Your task to perform on an android device: open app "Duolingo: language lessons" Image 0: 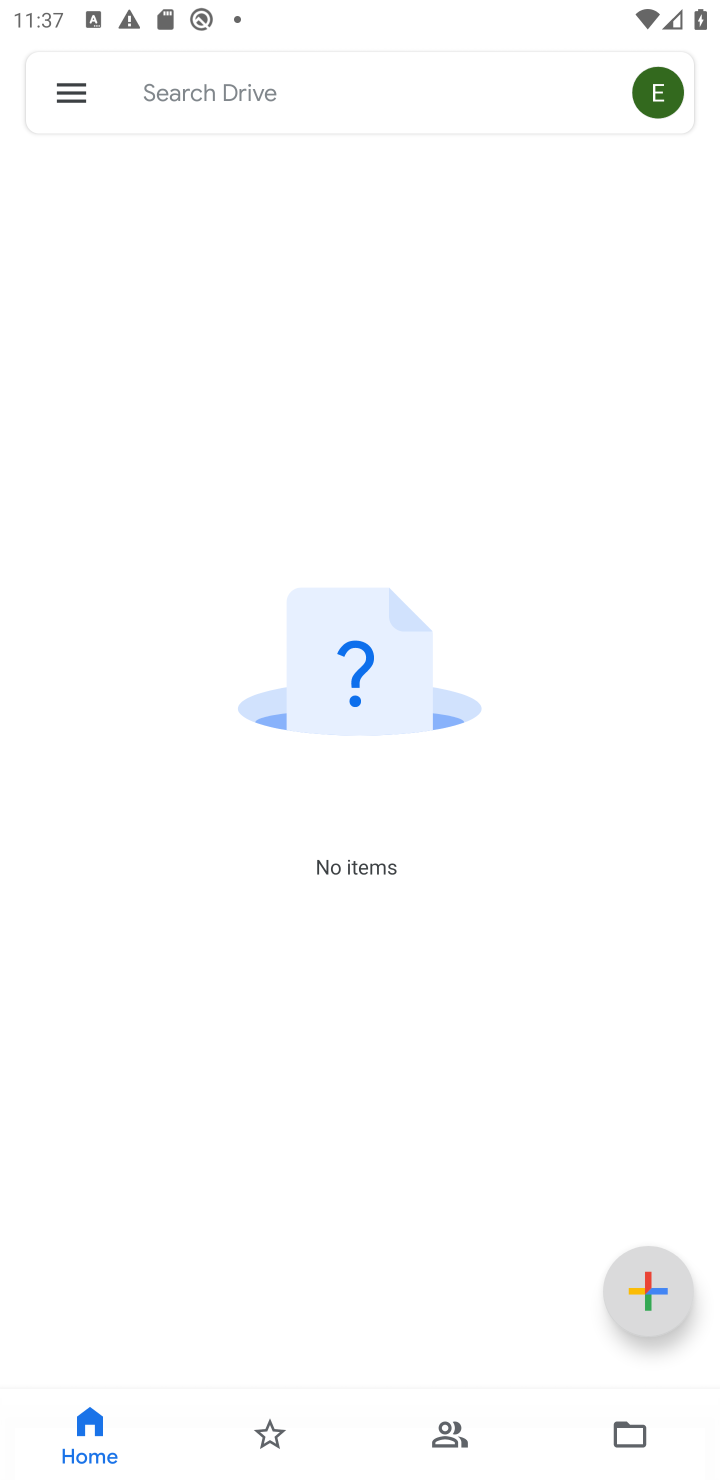
Step 0: press home button
Your task to perform on an android device: open app "Duolingo: language lessons" Image 1: 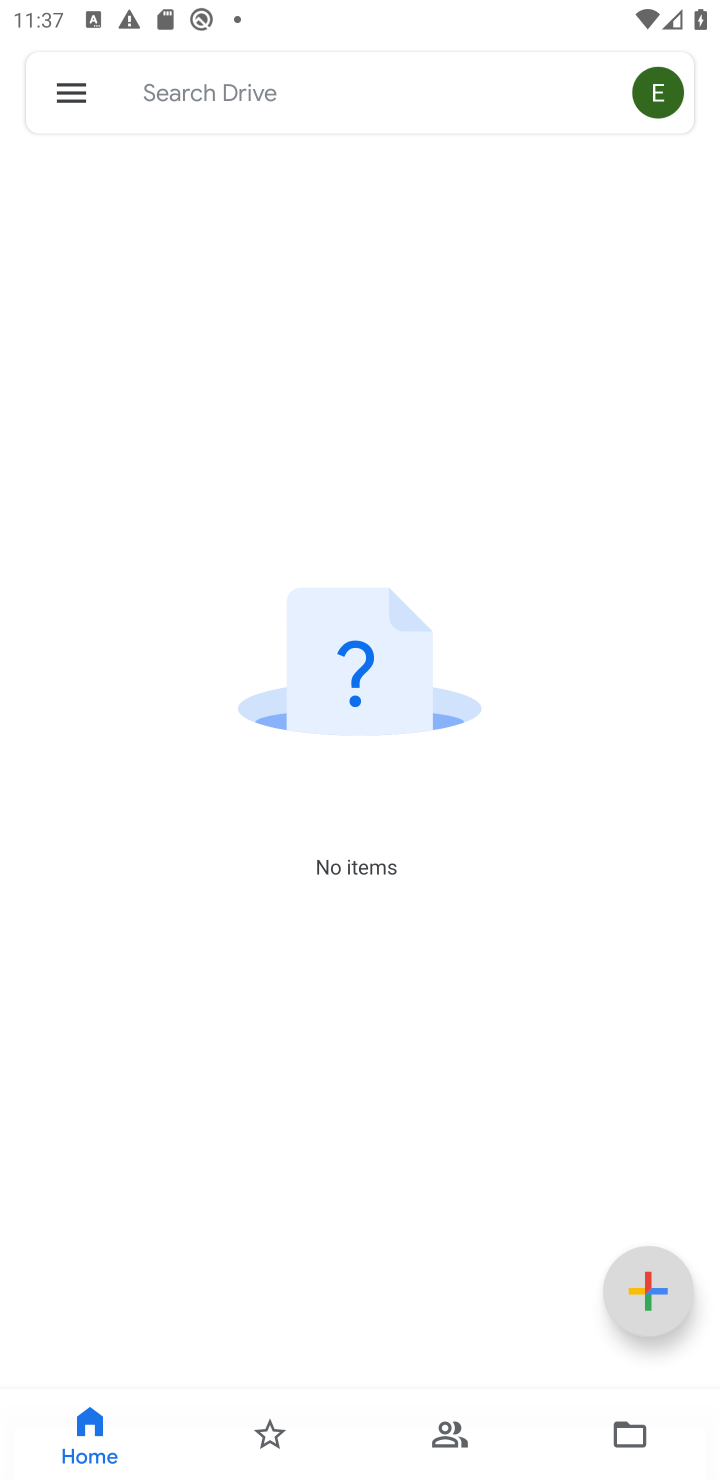
Step 1: press home button
Your task to perform on an android device: open app "Duolingo: language lessons" Image 2: 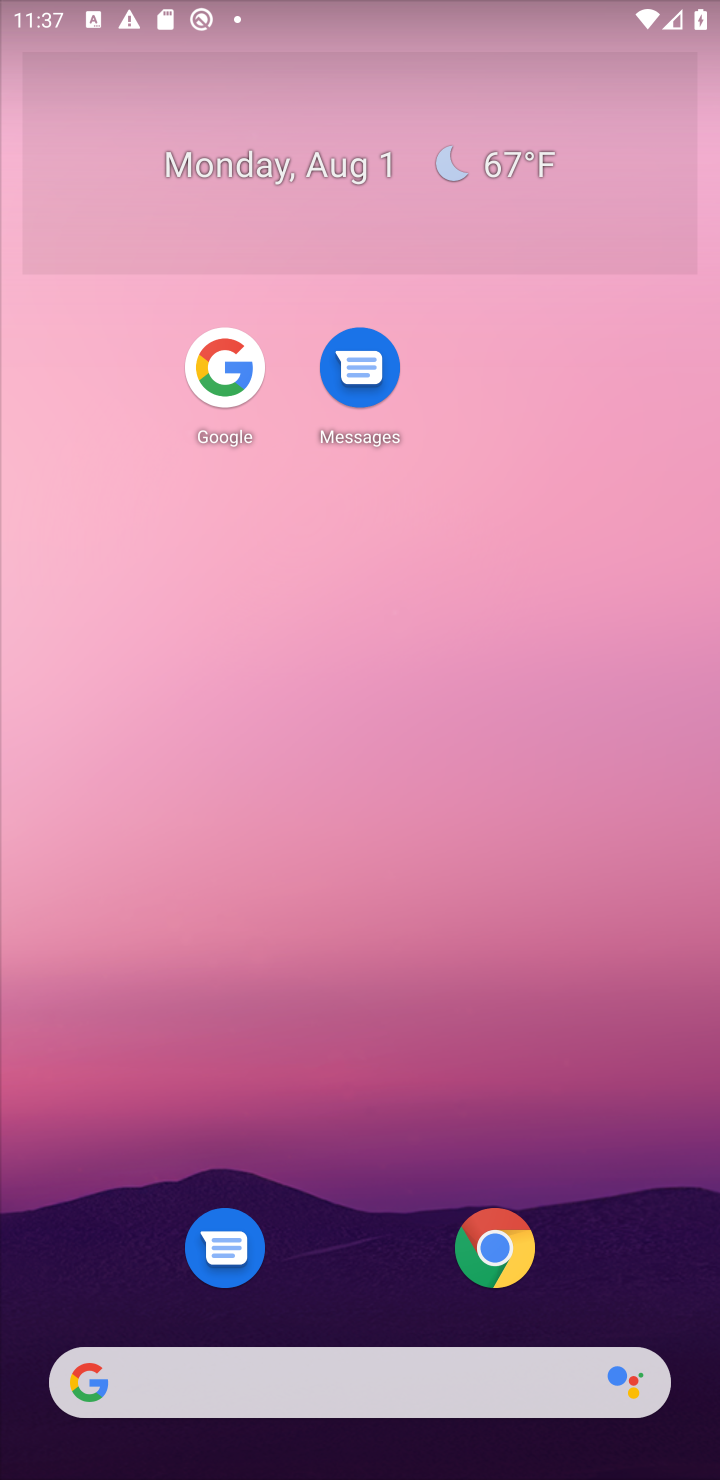
Step 2: drag from (492, 781) to (233, 30)
Your task to perform on an android device: open app "Duolingo: language lessons" Image 3: 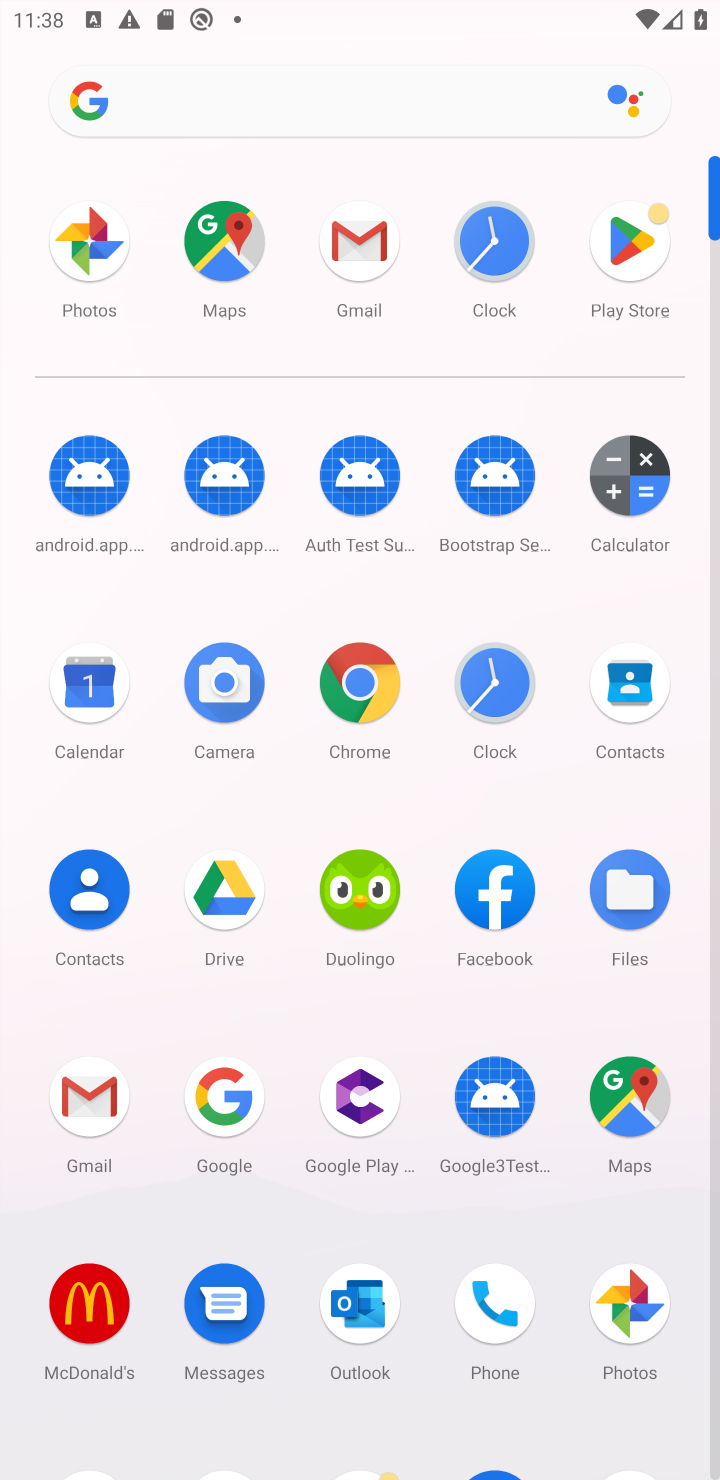
Step 3: drag from (419, 1178) to (433, 416)
Your task to perform on an android device: open app "Duolingo: language lessons" Image 4: 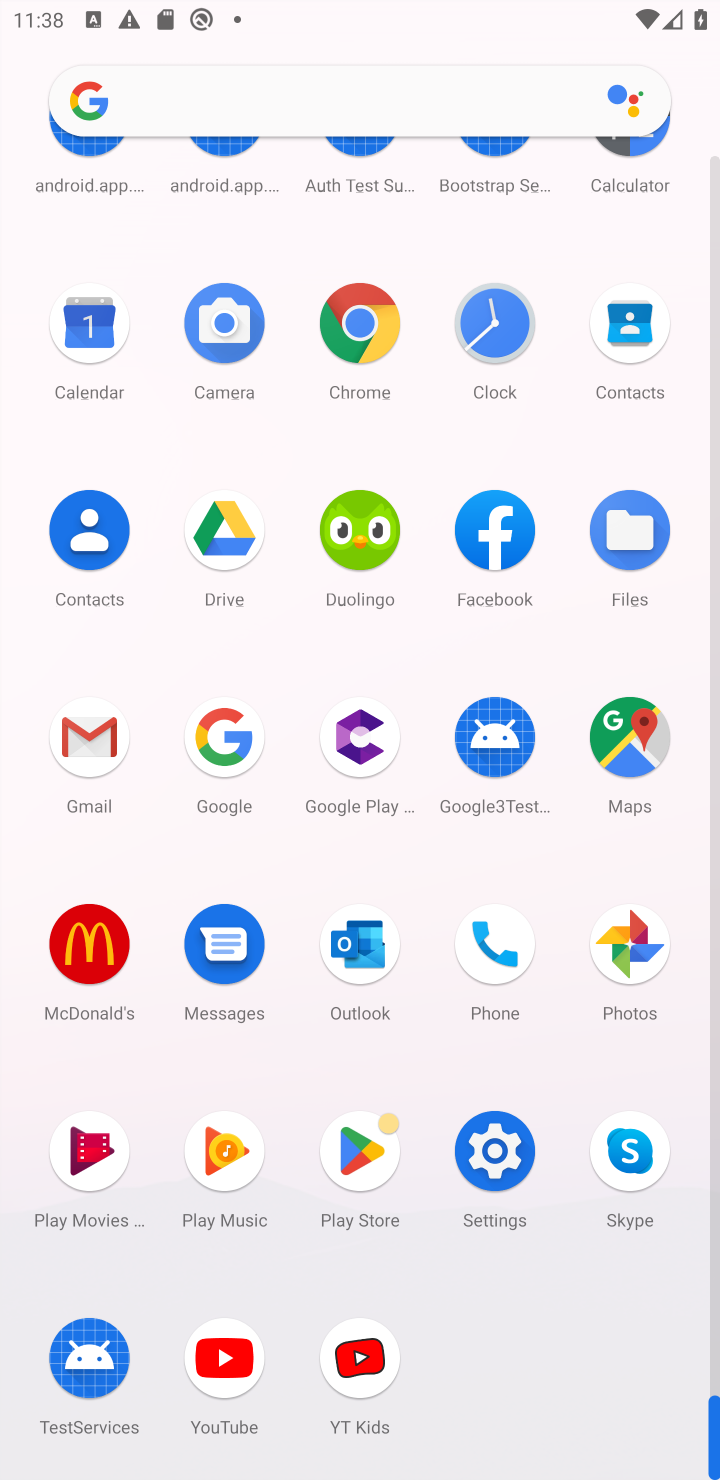
Step 4: click (342, 1161)
Your task to perform on an android device: open app "Duolingo: language lessons" Image 5: 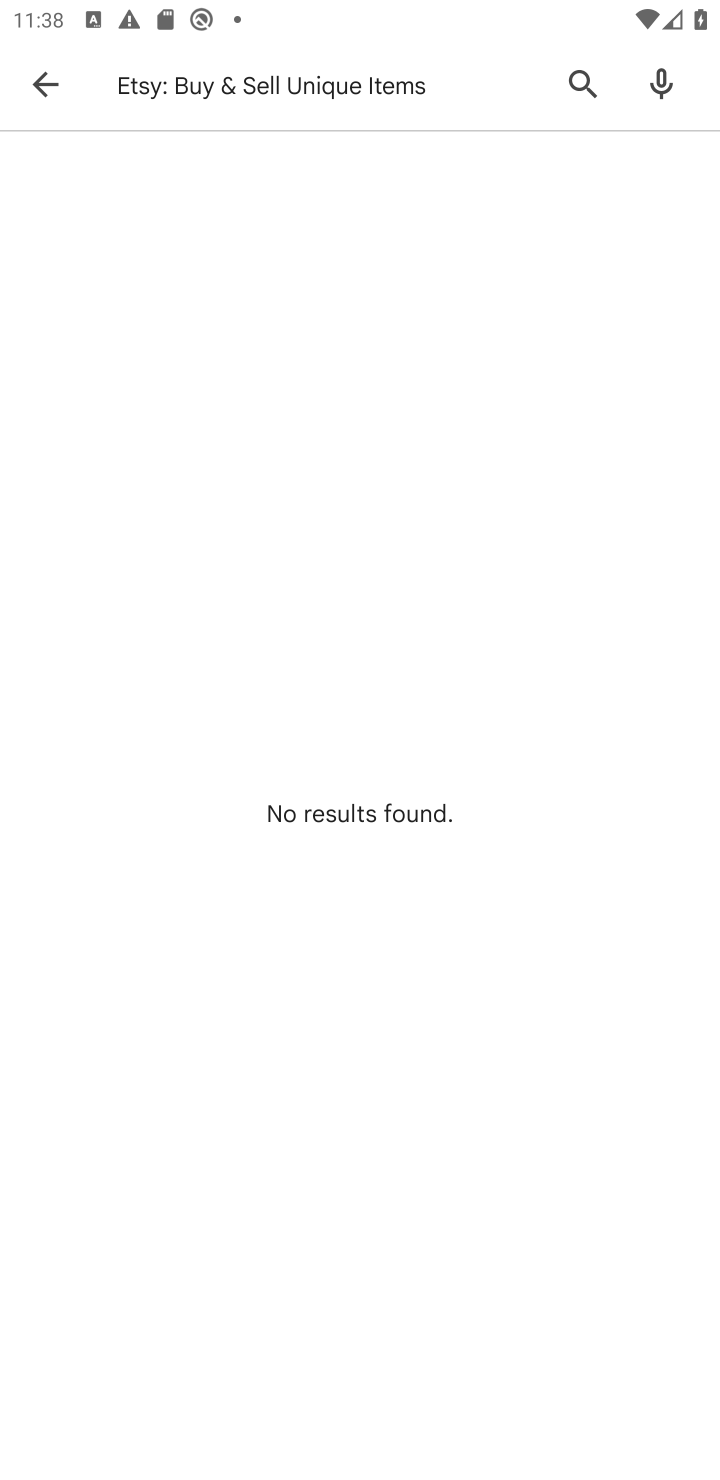
Step 5: click (379, 84)
Your task to perform on an android device: open app "Duolingo: language lessons" Image 6: 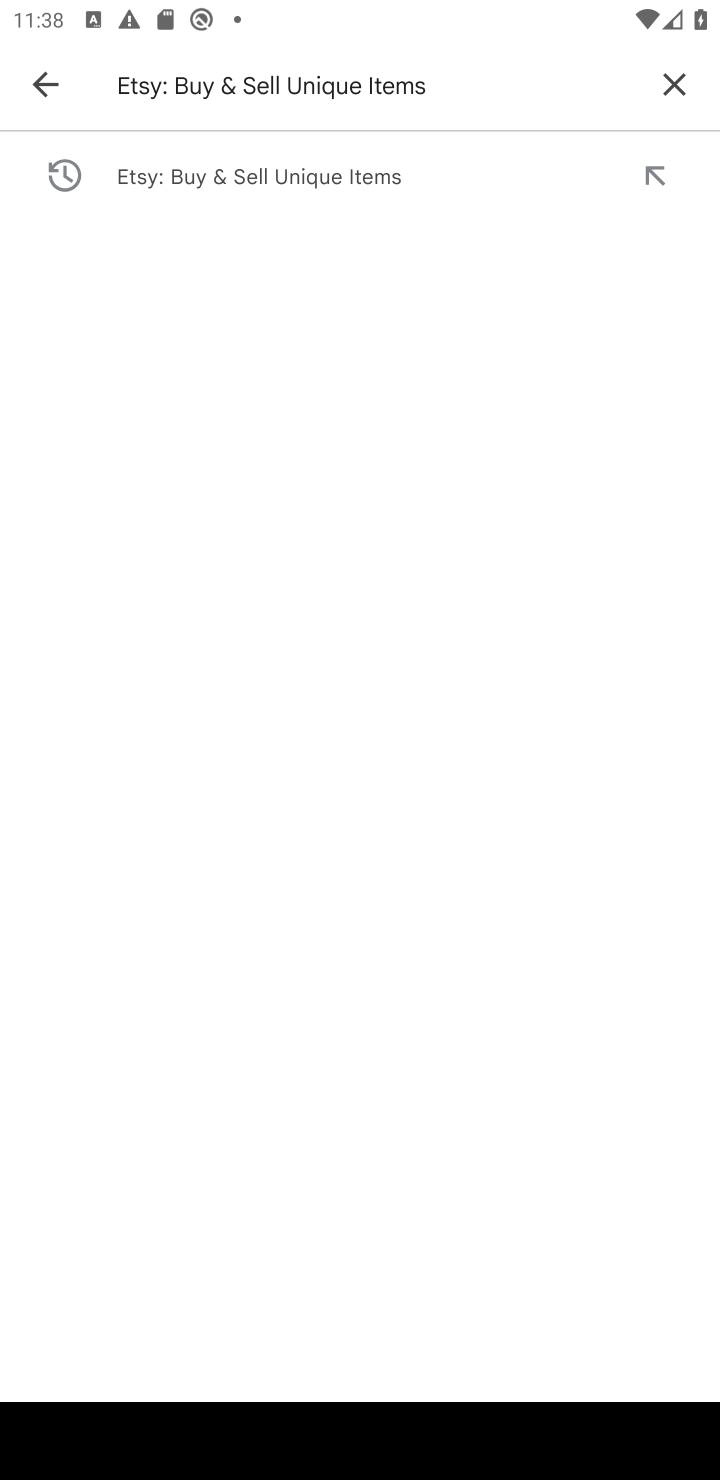
Step 6: click (691, 84)
Your task to perform on an android device: open app "Duolingo: language lessons" Image 7: 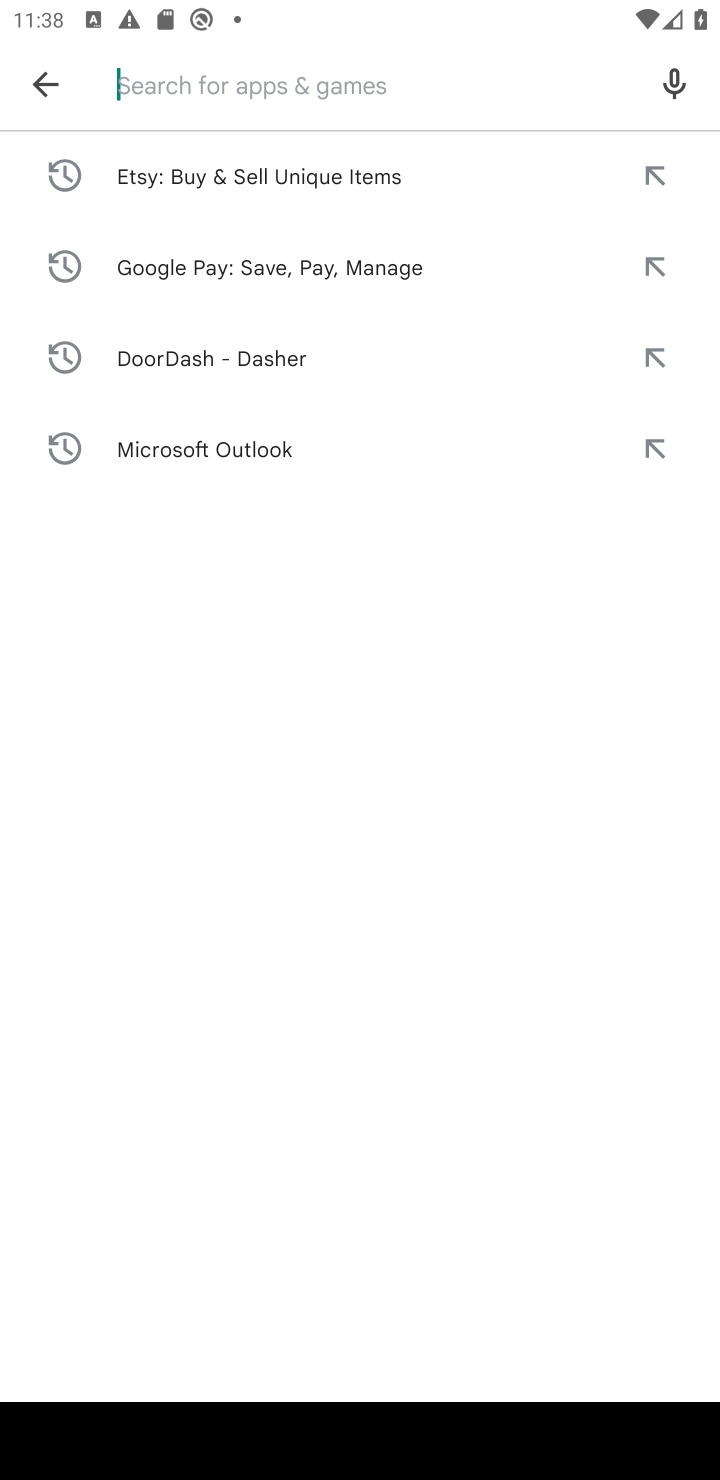
Step 7: type "Duolingo: language lessons"
Your task to perform on an android device: open app "Duolingo: language lessons" Image 8: 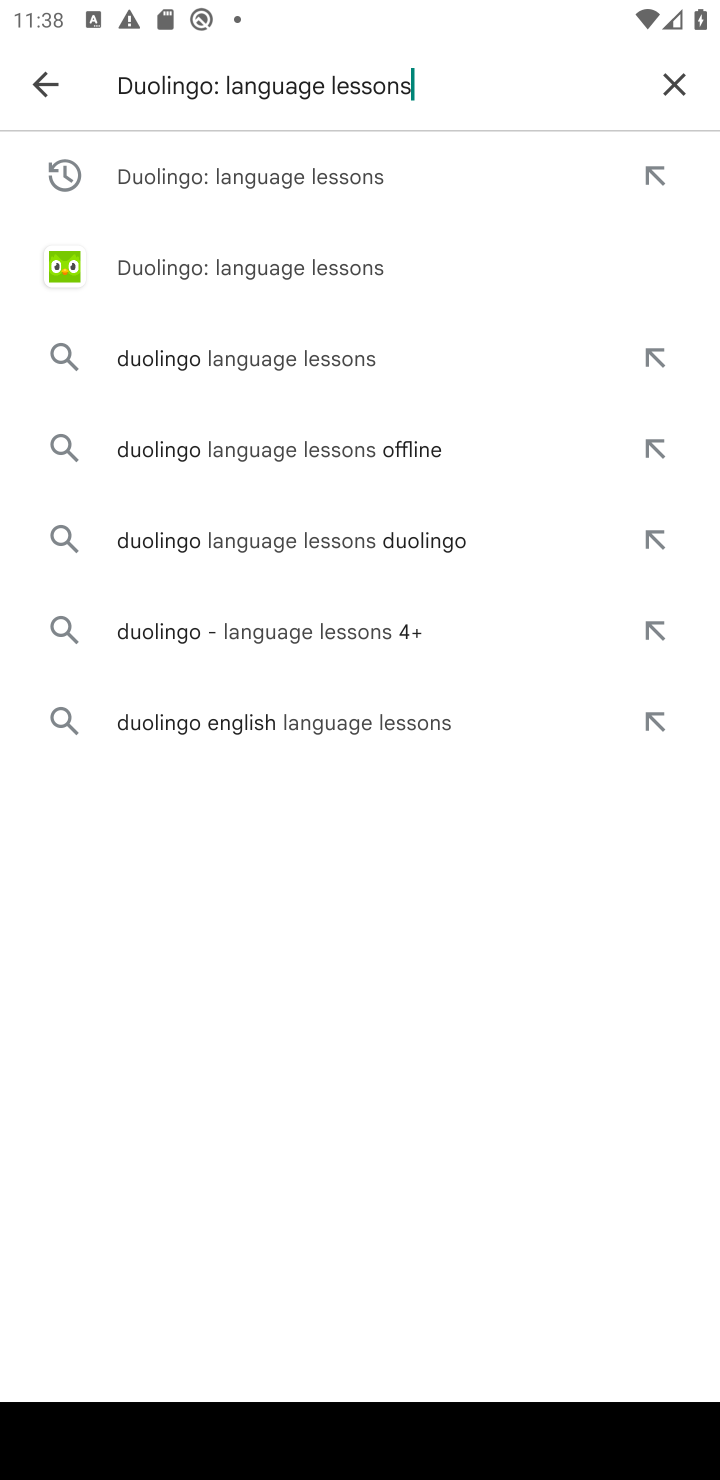
Step 8: press enter
Your task to perform on an android device: open app "Duolingo: language lessons" Image 9: 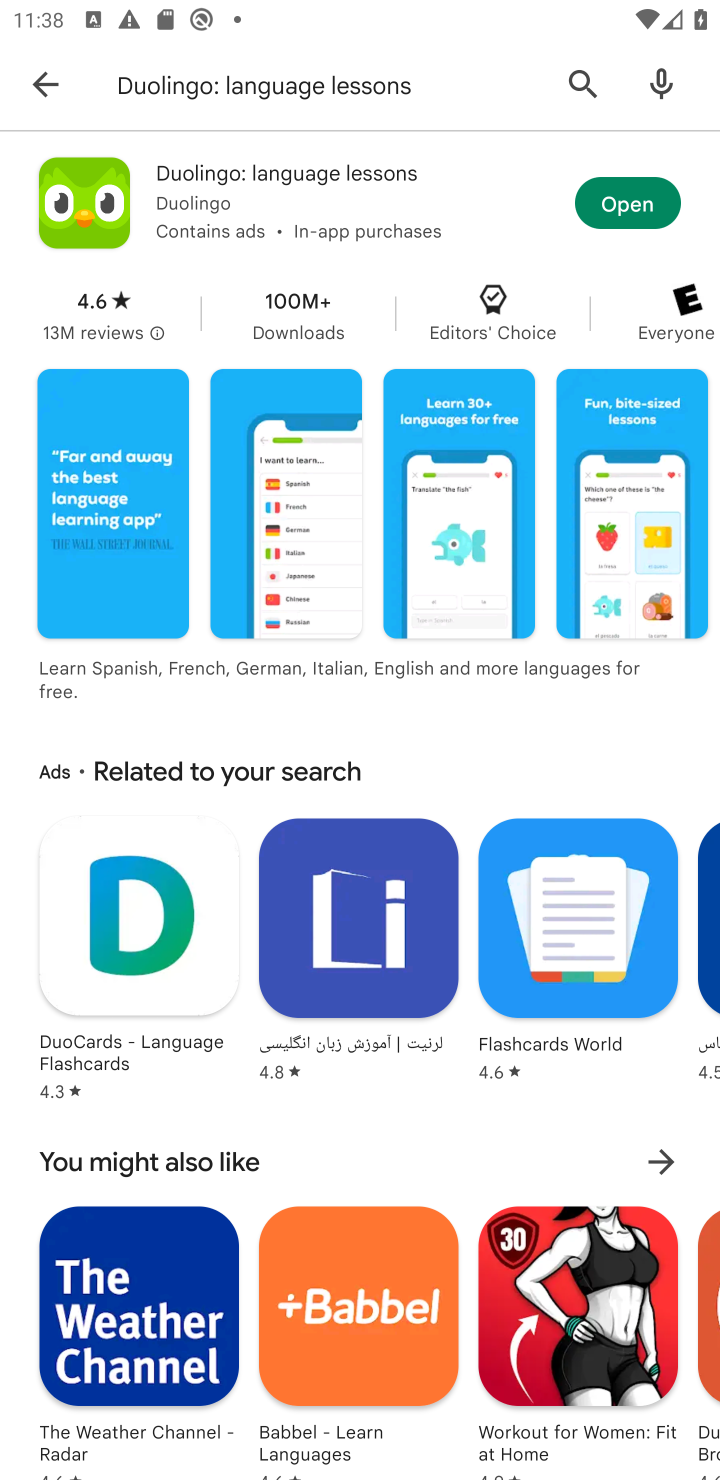
Step 9: click (654, 203)
Your task to perform on an android device: open app "Duolingo: language lessons" Image 10: 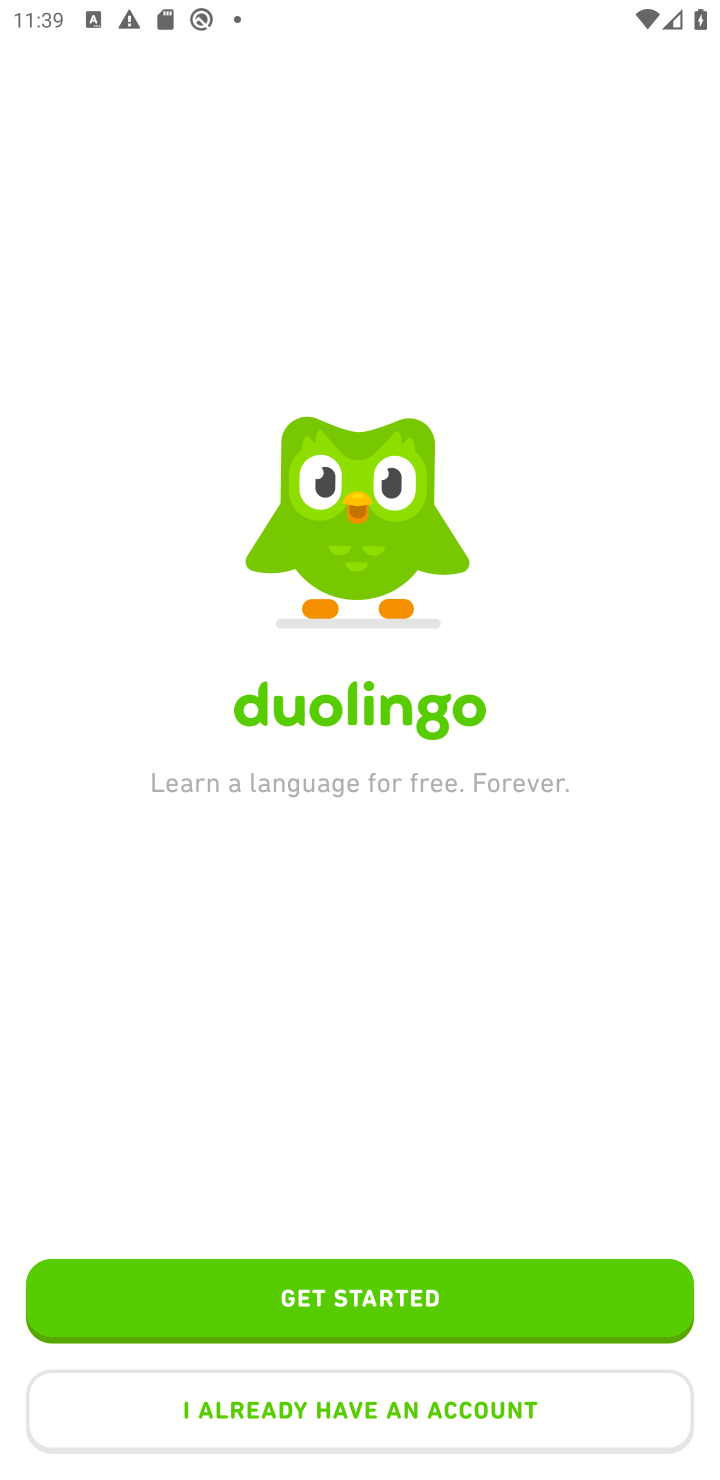
Step 10: task complete